Your task to perform on an android device: uninstall "Airtel Thanks" Image 0: 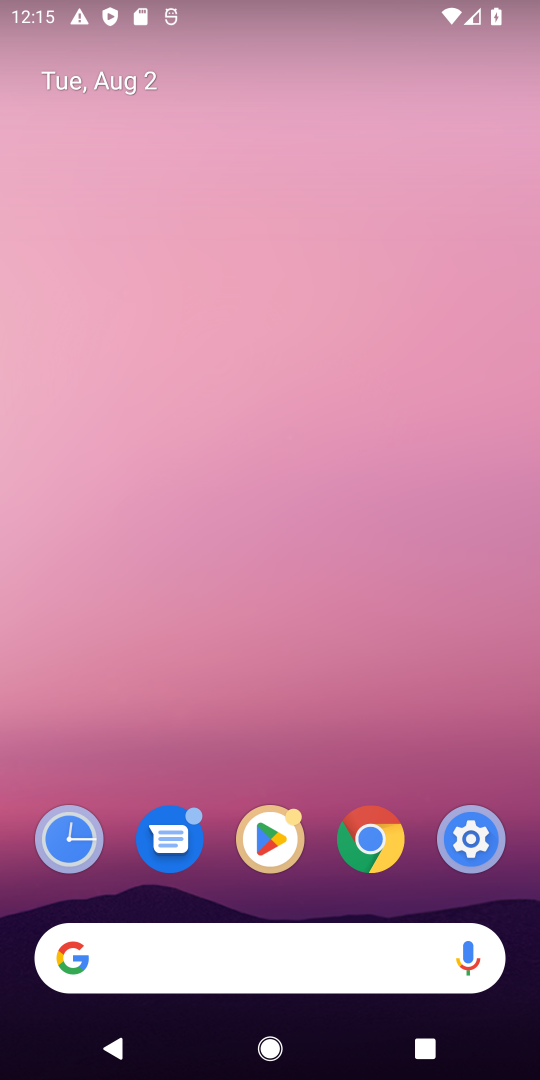
Step 0: click (287, 841)
Your task to perform on an android device: uninstall "Airtel Thanks" Image 1: 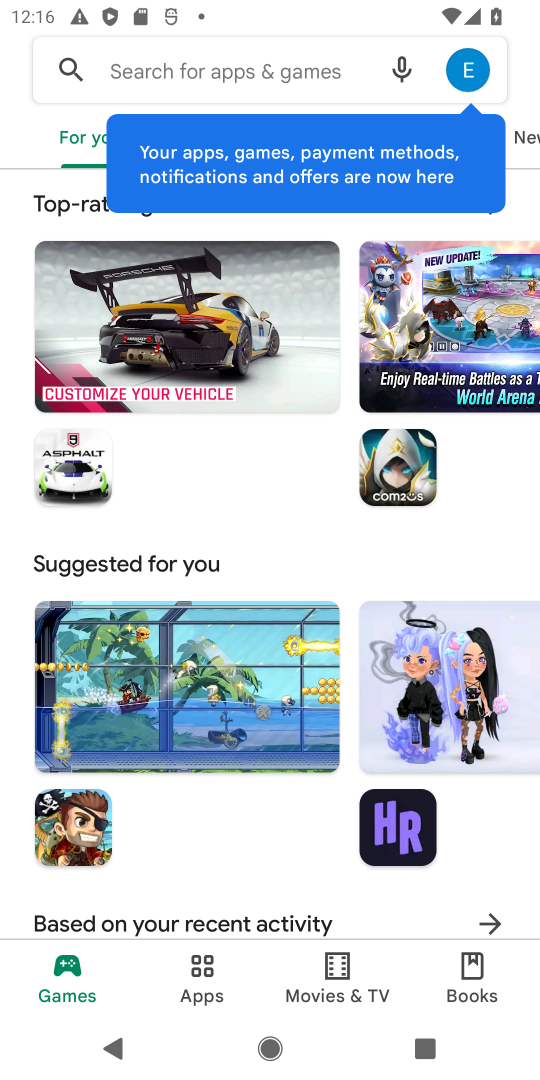
Step 1: click (285, 74)
Your task to perform on an android device: uninstall "Airtel Thanks" Image 2: 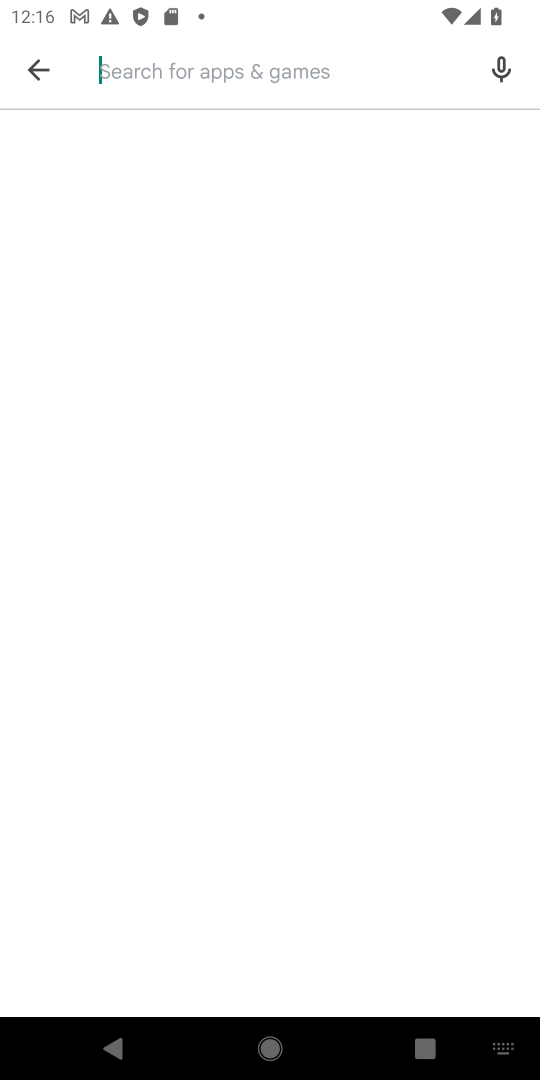
Step 2: type "airtel thanks"
Your task to perform on an android device: uninstall "Airtel Thanks" Image 3: 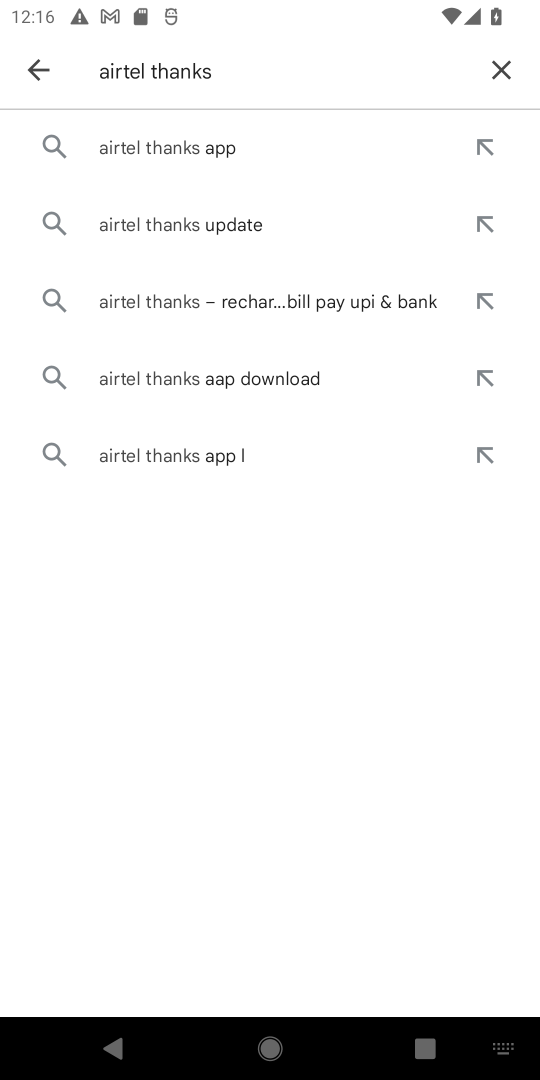
Step 3: click (229, 149)
Your task to perform on an android device: uninstall "Airtel Thanks" Image 4: 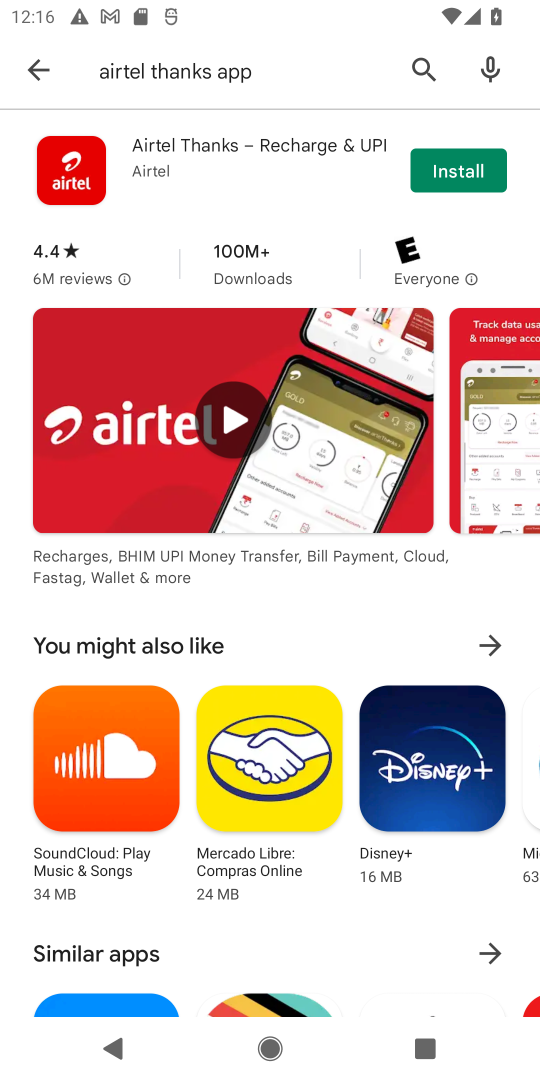
Step 4: task complete